Your task to perform on an android device: Open the calendar app, open the side menu, and click the "Day" option Image 0: 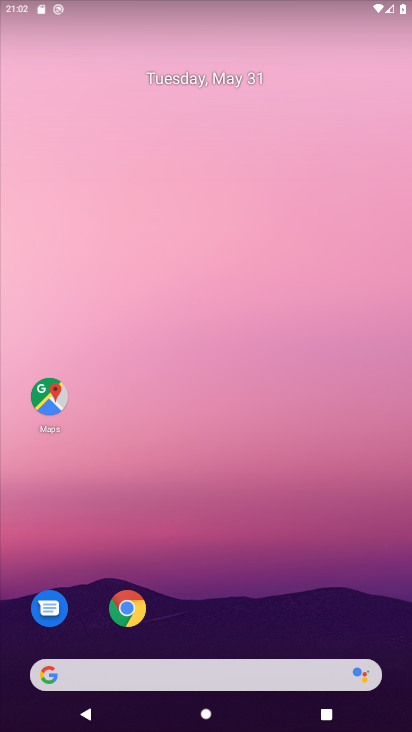
Step 0: drag from (274, 623) to (181, 122)
Your task to perform on an android device: Open the calendar app, open the side menu, and click the "Day" option Image 1: 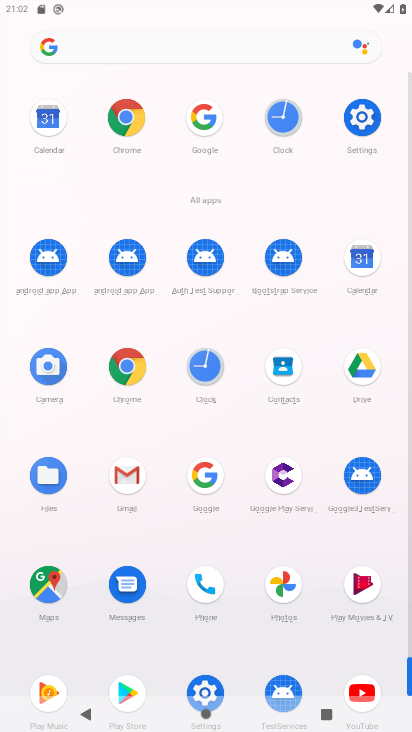
Step 1: click (365, 258)
Your task to perform on an android device: Open the calendar app, open the side menu, and click the "Day" option Image 2: 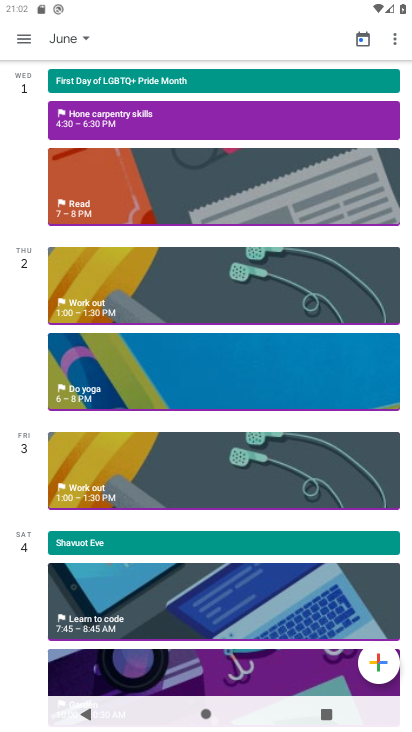
Step 2: click (362, 43)
Your task to perform on an android device: Open the calendar app, open the side menu, and click the "Day" option Image 3: 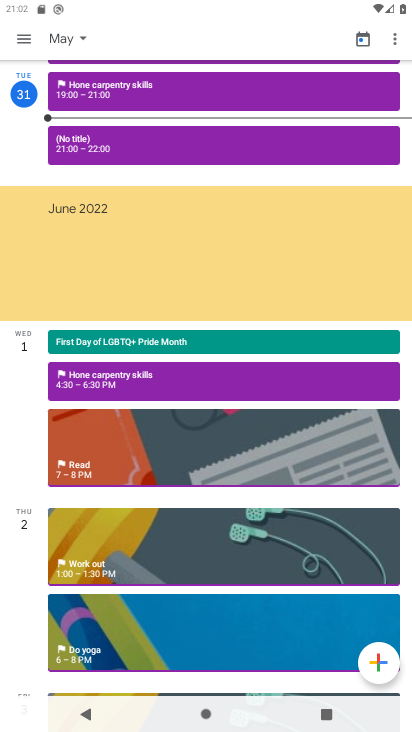
Step 3: click (25, 39)
Your task to perform on an android device: Open the calendar app, open the side menu, and click the "Day" option Image 4: 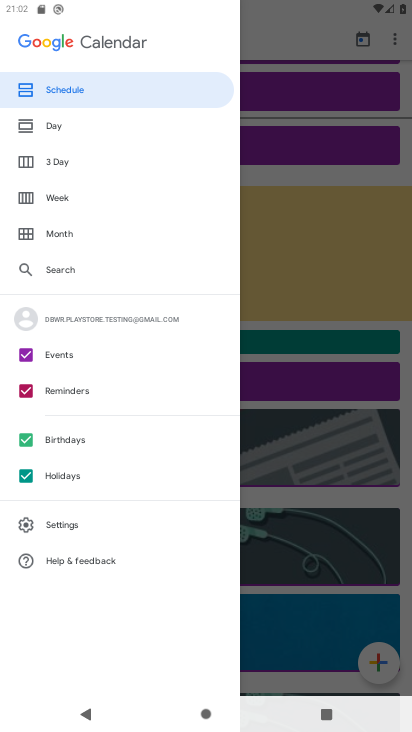
Step 4: click (52, 130)
Your task to perform on an android device: Open the calendar app, open the side menu, and click the "Day" option Image 5: 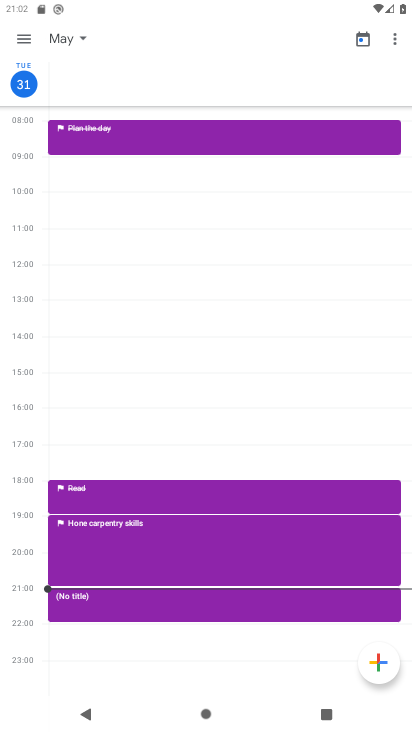
Step 5: task complete